Your task to perform on an android device: Open Google Maps and go to "Timeline" Image 0: 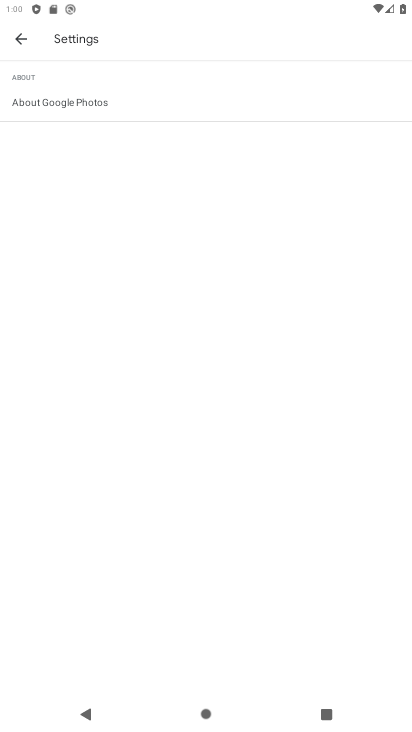
Step 0: press home button
Your task to perform on an android device: Open Google Maps and go to "Timeline" Image 1: 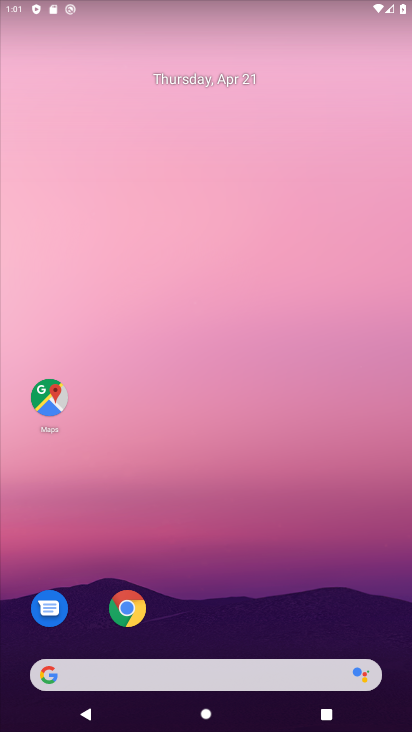
Step 1: drag from (271, 630) to (281, 376)
Your task to perform on an android device: Open Google Maps and go to "Timeline" Image 2: 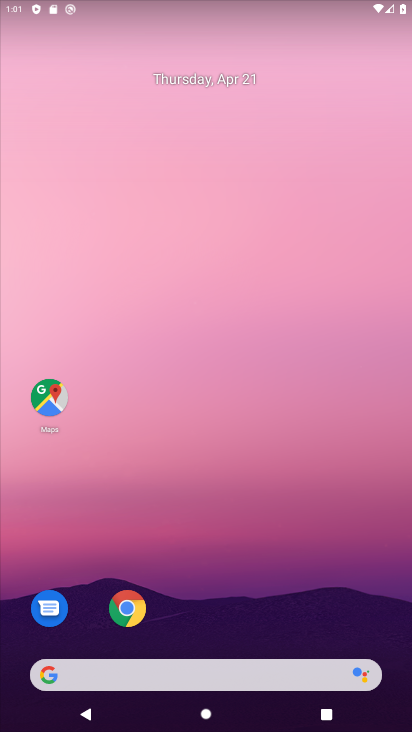
Step 2: drag from (209, 618) to (216, 230)
Your task to perform on an android device: Open Google Maps and go to "Timeline" Image 3: 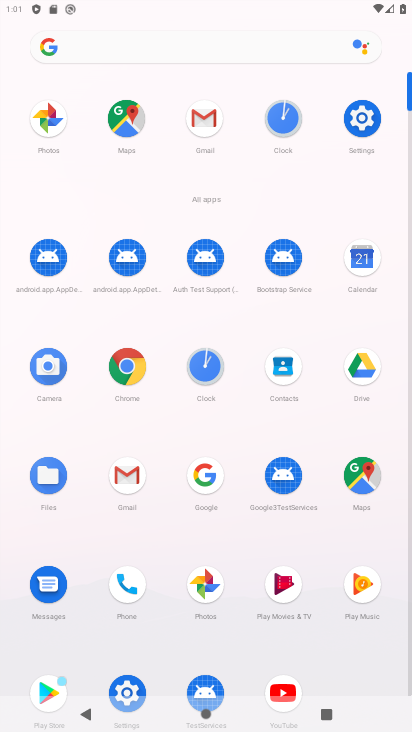
Step 3: click (360, 472)
Your task to perform on an android device: Open Google Maps and go to "Timeline" Image 4: 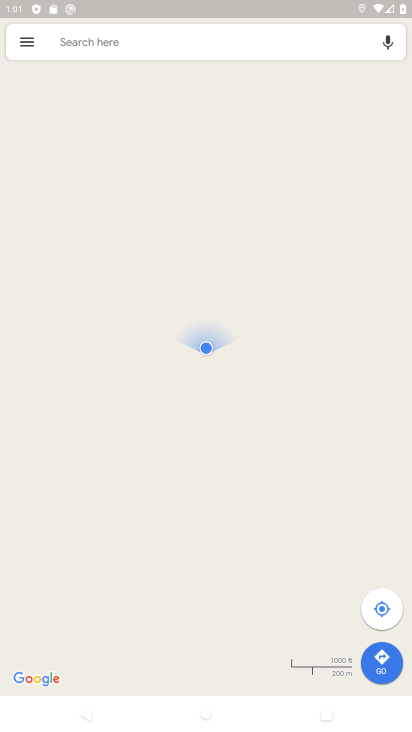
Step 4: click (26, 36)
Your task to perform on an android device: Open Google Maps and go to "Timeline" Image 5: 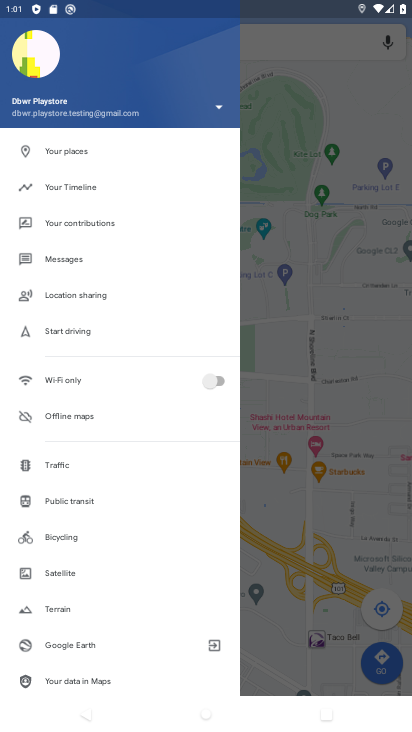
Step 5: click (80, 187)
Your task to perform on an android device: Open Google Maps and go to "Timeline" Image 6: 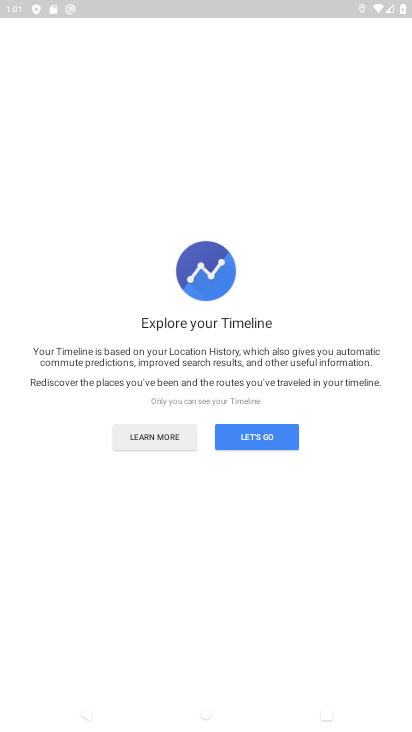
Step 6: click (230, 437)
Your task to perform on an android device: Open Google Maps and go to "Timeline" Image 7: 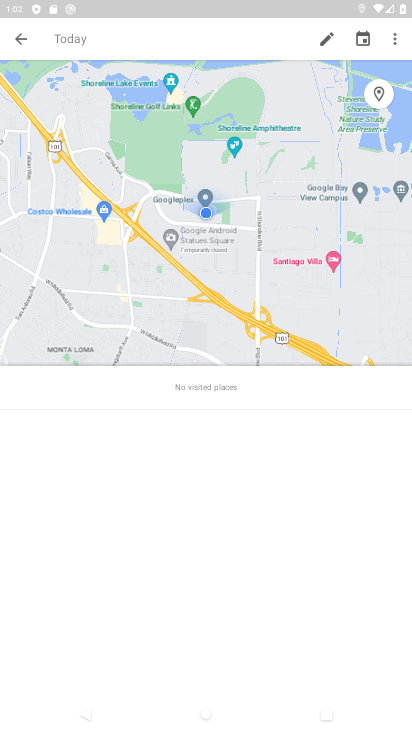
Step 7: task complete